Your task to perform on an android device: create a new album in the google photos Image 0: 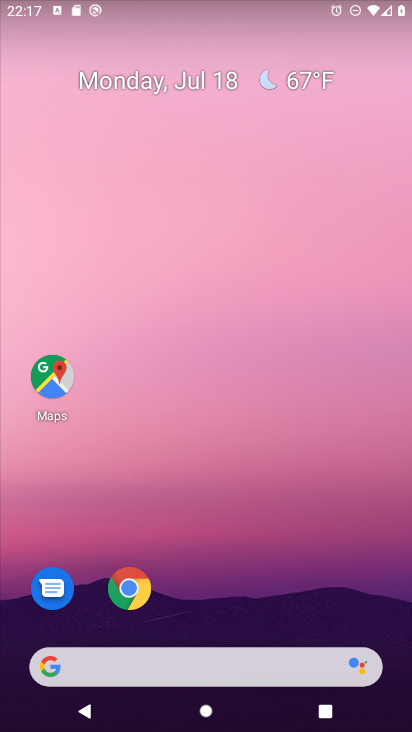
Step 0: drag from (369, 609) to (353, 114)
Your task to perform on an android device: create a new album in the google photos Image 1: 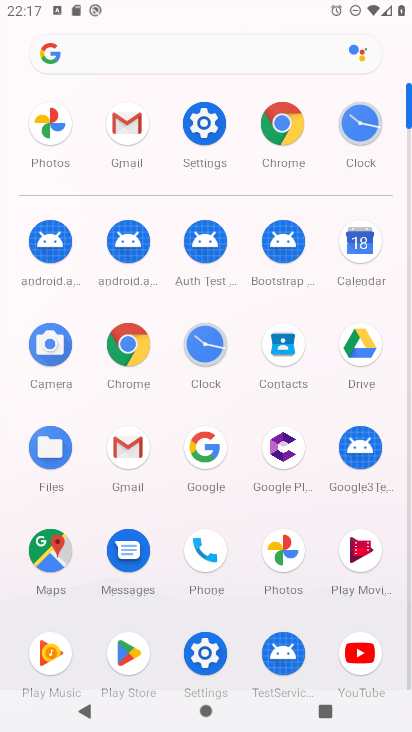
Step 1: click (283, 550)
Your task to perform on an android device: create a new album in the google photos Image 2: 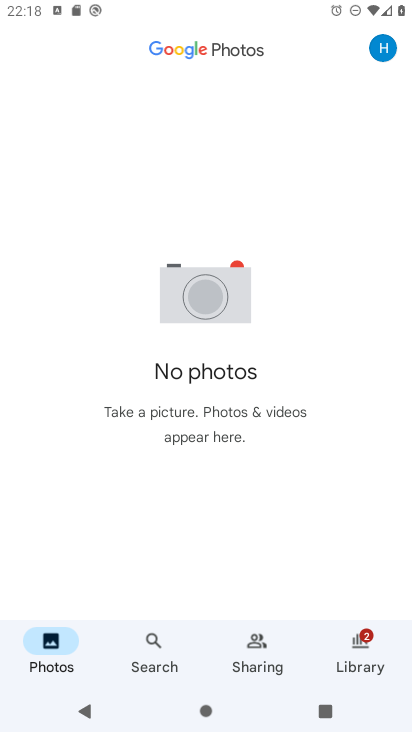
Step 2: click (361, 648)
Your task to perform on an android device: create a new album in the google photos Image 3: 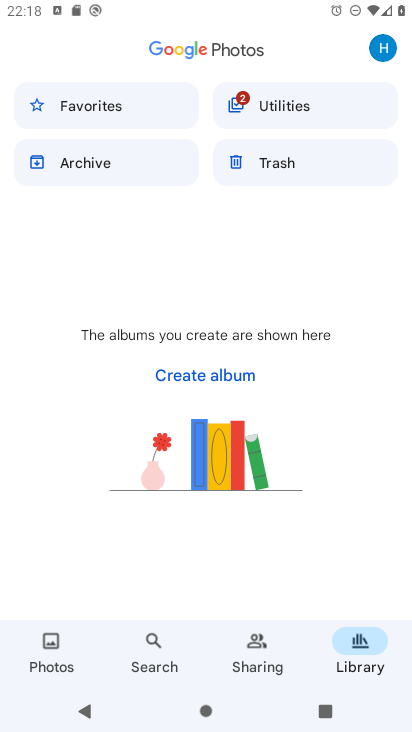
Step 3: click (206, 376)
Your task to perform on an android device: create a new album in the google photos Image 4: 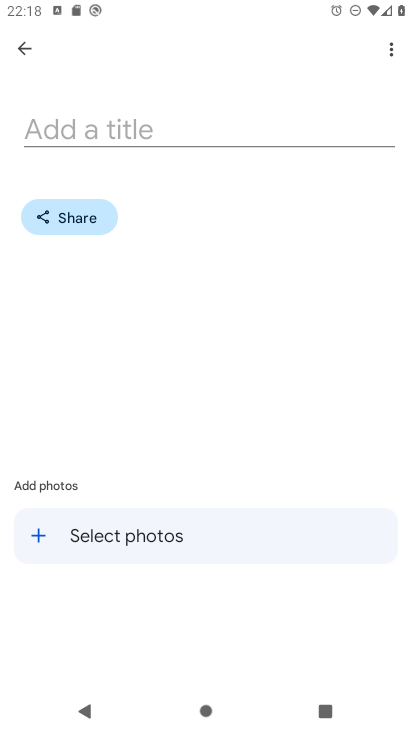
Step 4: click (94, 130)
Your task to perform on an android device: create a new album in the google photos Image 5: 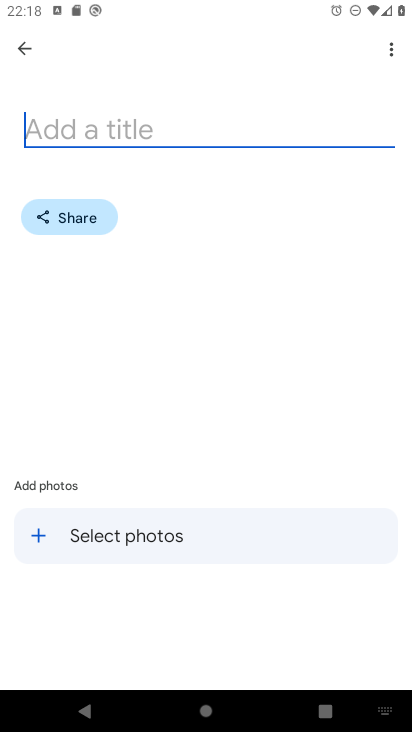
Step 5: type "gfdsdf"
Your task to perform on an android device: create a new album in the google photos Image 6: 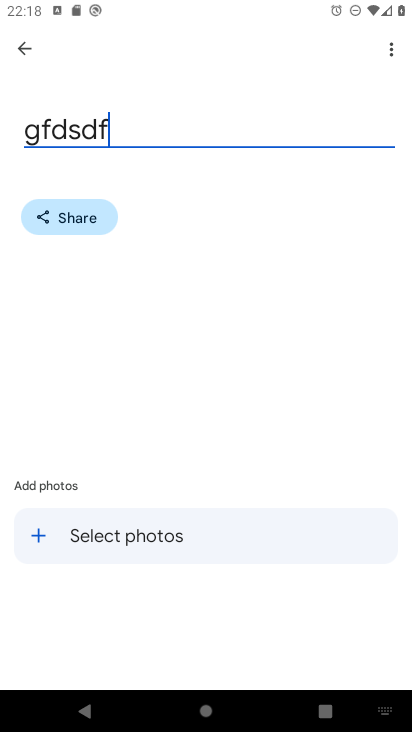
Step 6: click (34, 535)
Your task to perform on an android device: create a new album in the google photos Image 7: 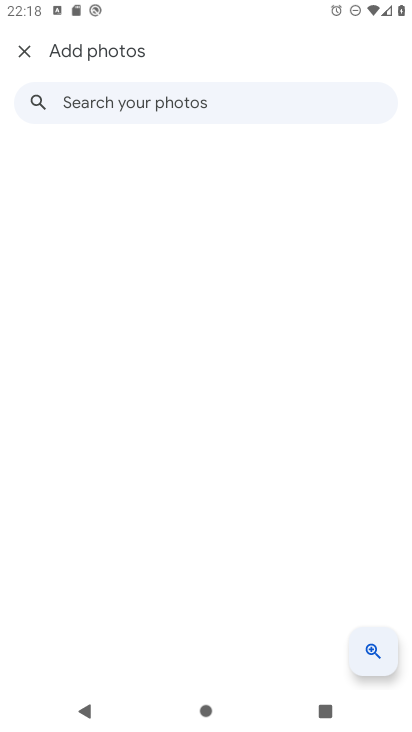
Step 7: task complete